Your task to perform on an android device: open chrome and create a bookmark for the current page Image 0: 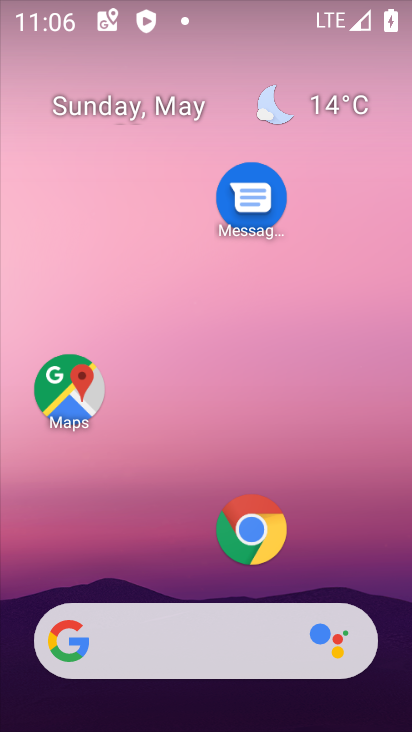
Step 0: click (263, 545)
Your task to perform on an android device: open chrome and create a bookmark for the current page Image 1: 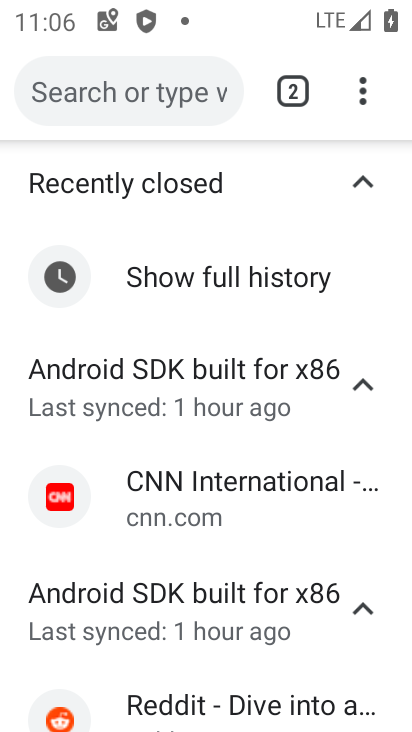
Step 1: click (358, 88)
Your task to perform on an android device: open chrome and create a bookmark for the current page Image 2: 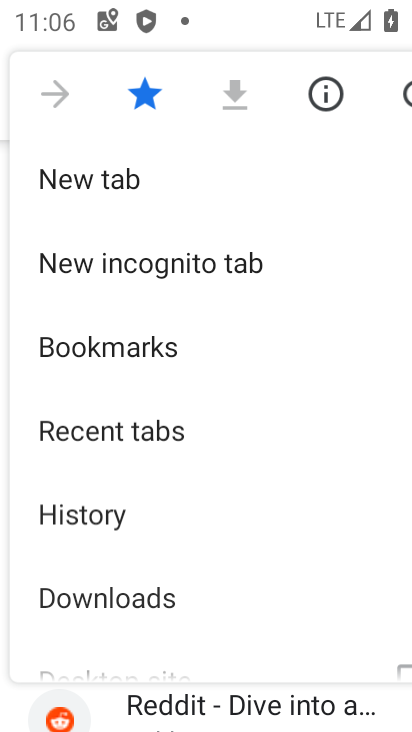
Step 2: click (358, 88)
Your task to perform on an android device: open chrome and create a bookmark for the current page Image 3: 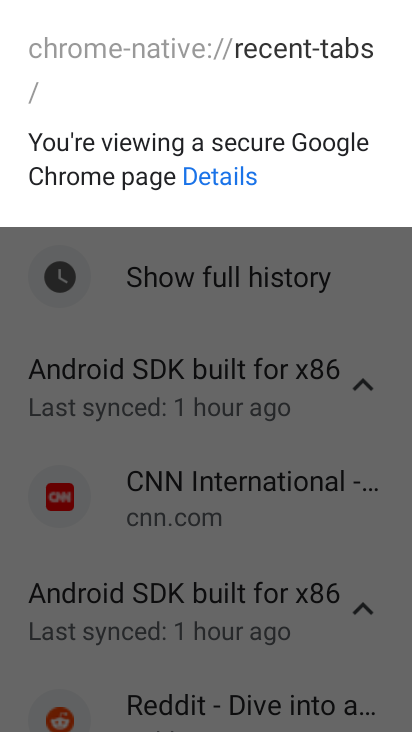
Step 3: task complete